Your task to perform on an android device: check android version Image 0: 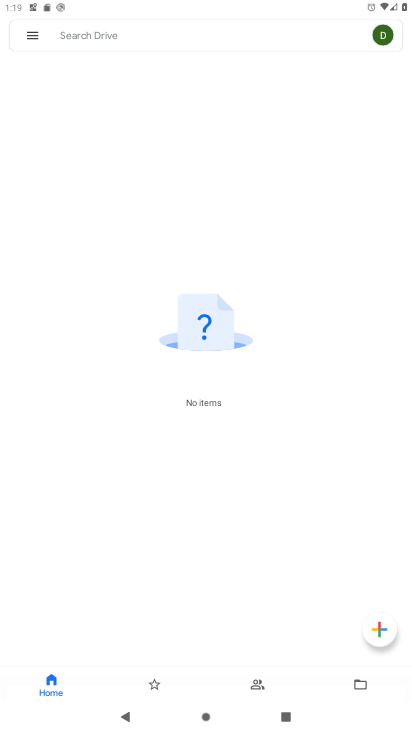
Step 0: press home button
Your task to perform on an android device: check android version Image 1: 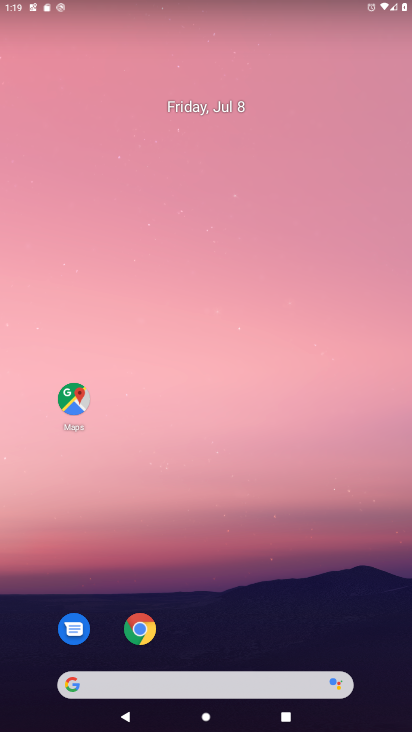
Step 1: drag from (282, 518) to (404, 72)
Your task to perform on an android device: check android version Image 2: 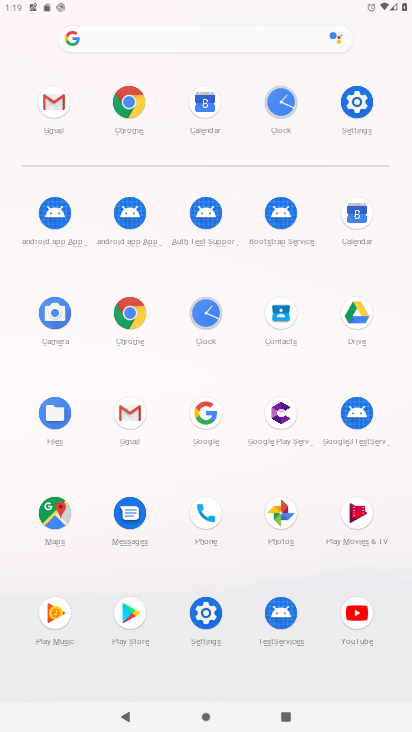
Step 2: click (354, 109)
Your task to perform on an android device: check android version Image 3: 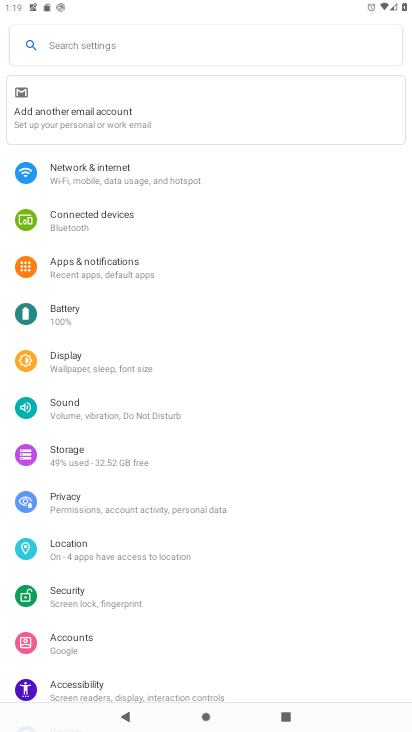
Step 3: drag from (182, 503) to (256, 2)
Your task to perform on an android device: check android version Image 4: 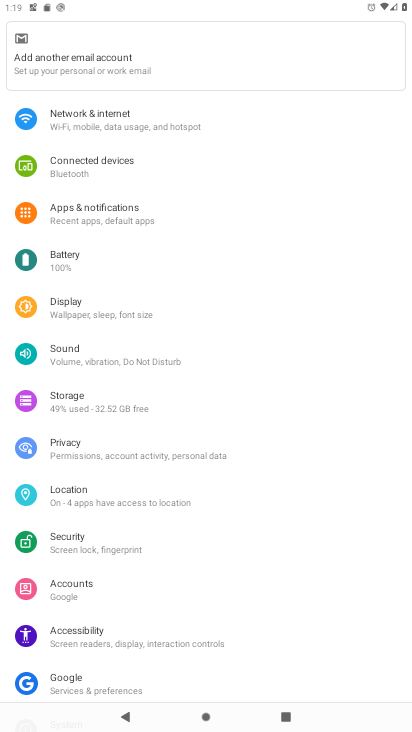
Step 4: drag from (158, 628) to (173, 156)
Your task to perform on an android device: check android version Image 5: 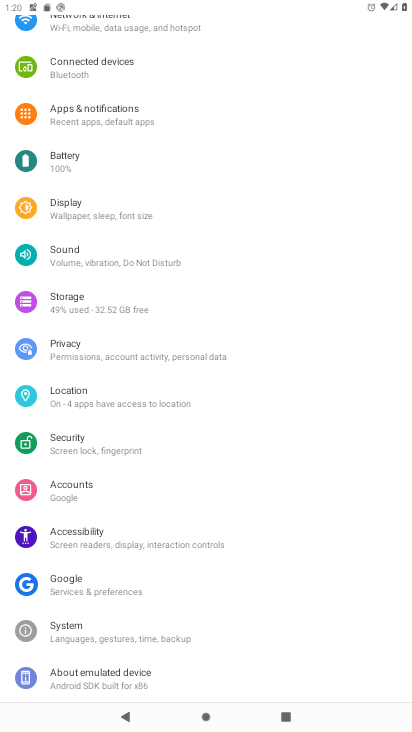
Step 5: click (118, 670)
Your task to perform on an android device: check android version Image 6: 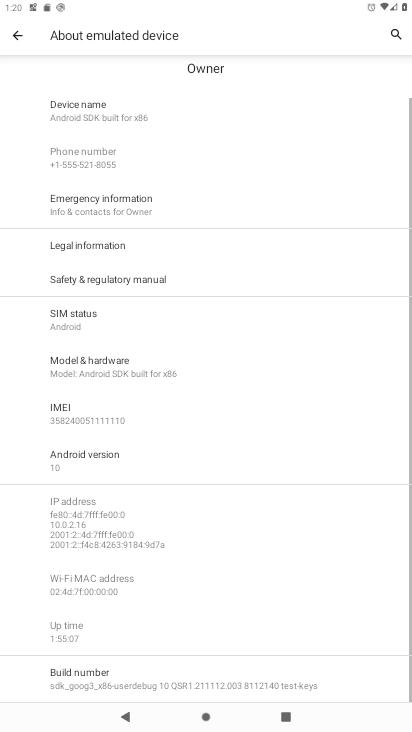
Step 6: click (135, 458)
Your task to perform on an android device: check android version Image 7: 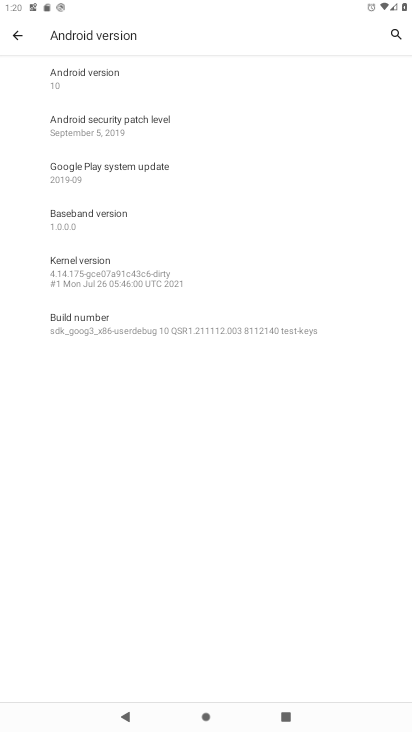
Step 7: click (114, 68)
Your task to perform on an android device: check android version Image 8: 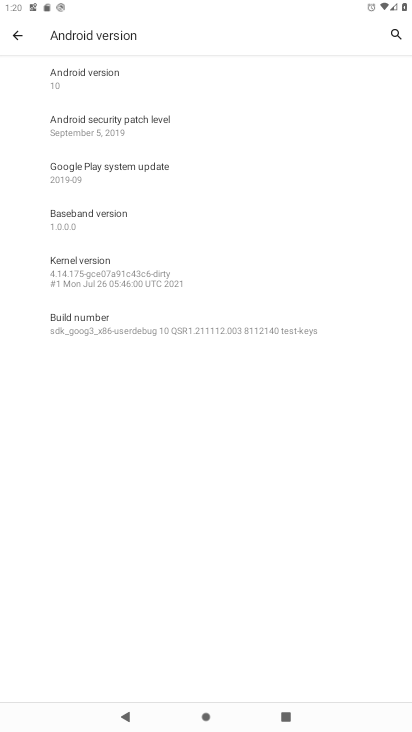
Step 8: click (66, 76)
Your task to perform on an android device: check android version Image 9: 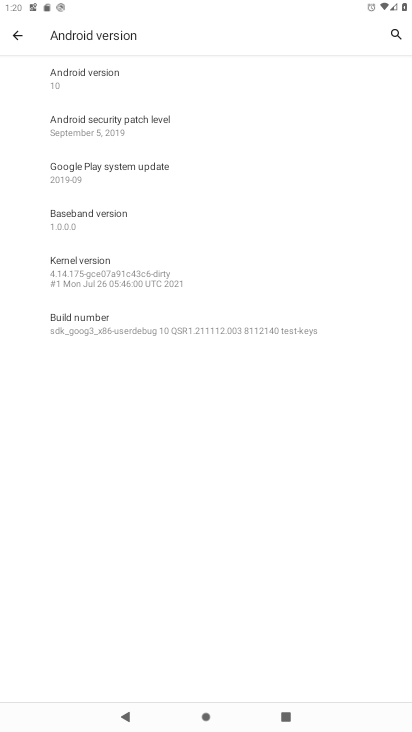
Step 9: click (67, 77)
Your task to perform on an android device: check android version Image 10: 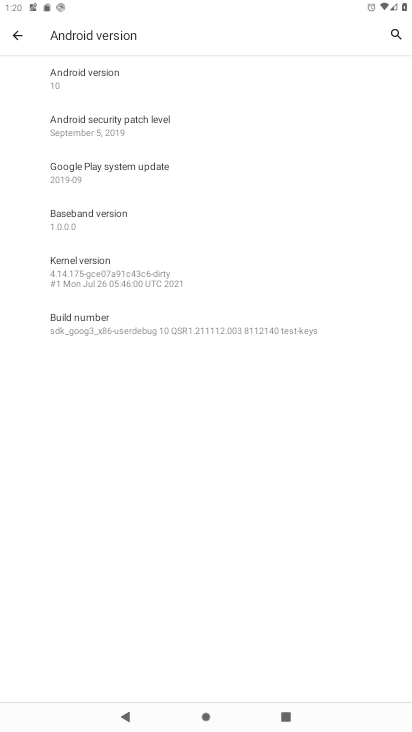
Step 10: task complete